Your task to perform on an android device: change the clock style Image 0: 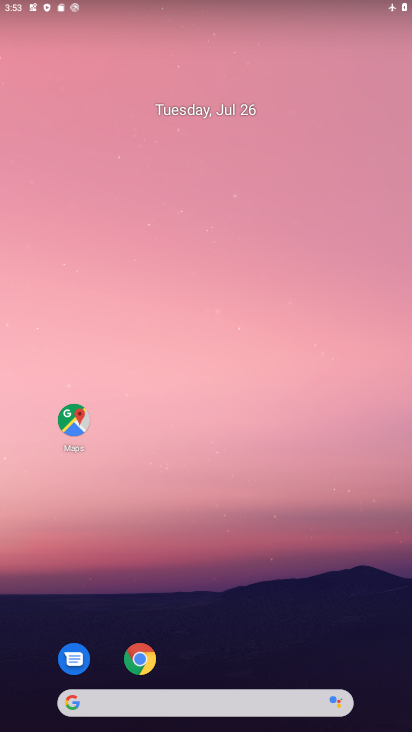
Step 0: drag from (255, 639) to (359, 16)
Your task to perform on an android device: change the clock style Image 1: 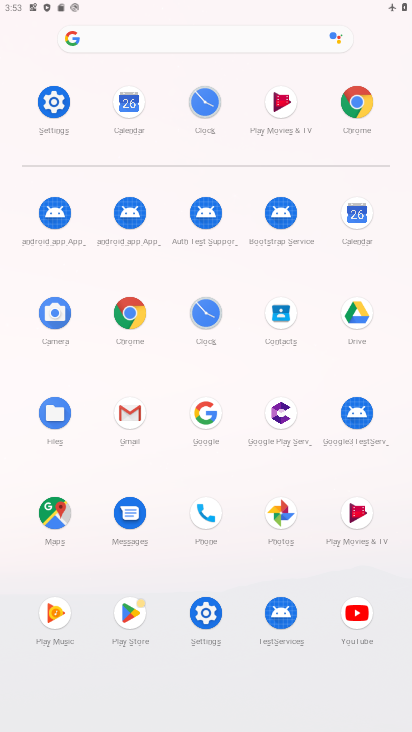
Step 1: click (197, 99)
Your task to perform on an android device: change the clock style Image 2: 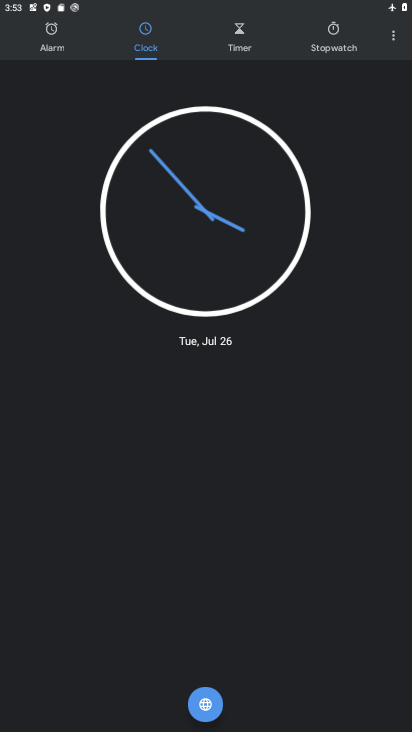
Step 2: click (397, 33)
Your task to perform on an android device: change the clock style Image 3: 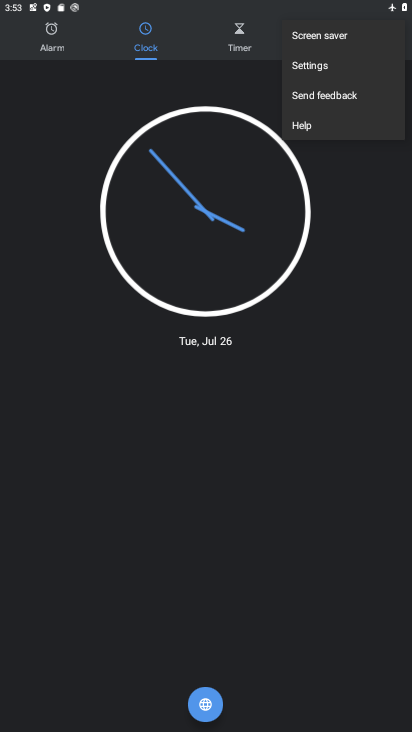
Step 3: click (328, 67)
Your task to perform on an android device: change the clock style Image 4: 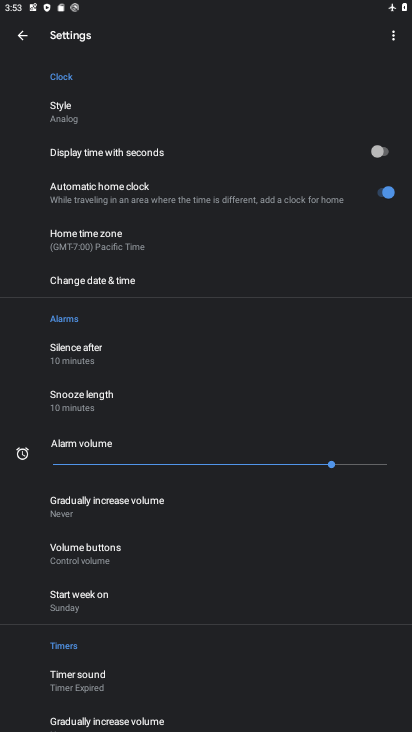
Step 4: click (75, 116)
Your task to perform on an android device: change the clock style Image 5: 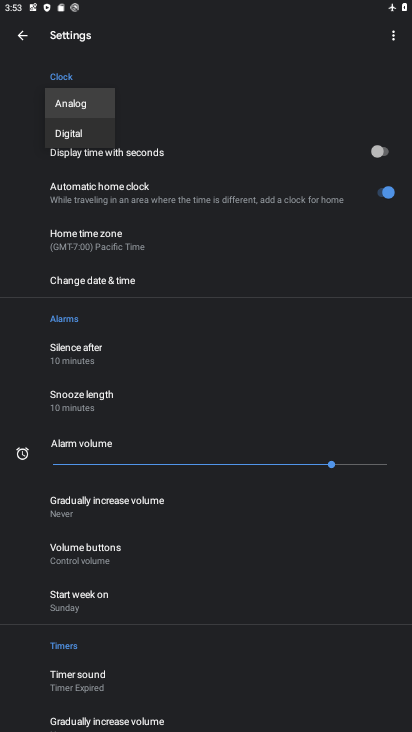
Step 5: click (73, 139)
Your task to perform on an android device: change the clock style Image 6: 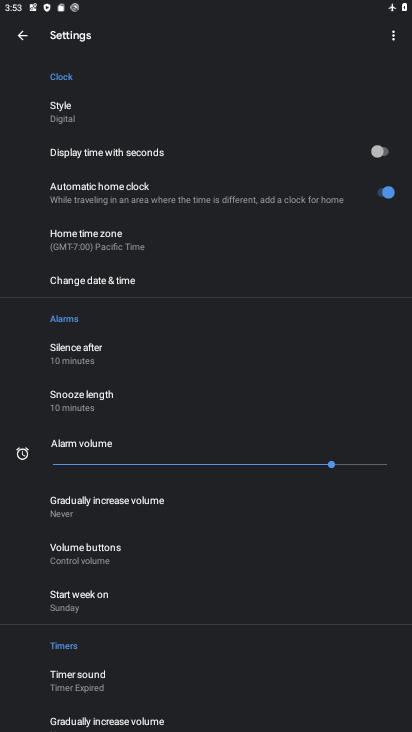
Step 6: task complete